Your task to perform on an android device: Open Reddit.com Image 0: 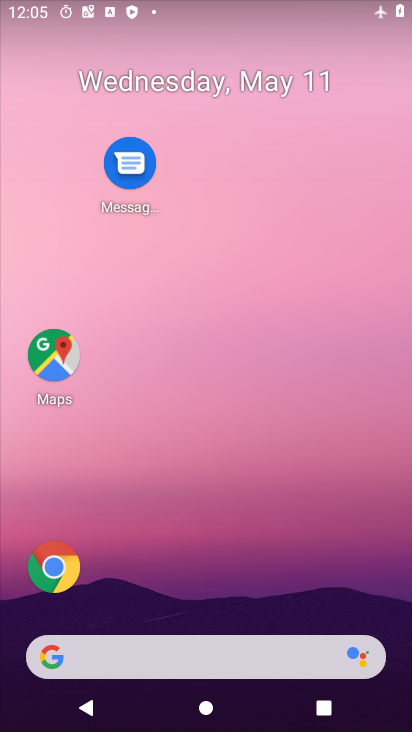
Step 0: click (136, 175)
Your task to perform on an android device: Open Reddit.com Image 1: 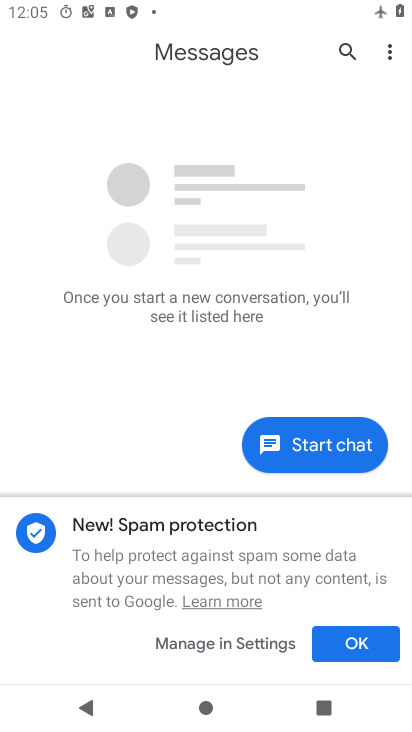
Step 1: press home button
Your task to perform on an android device: Open Reddit.com Image 2: 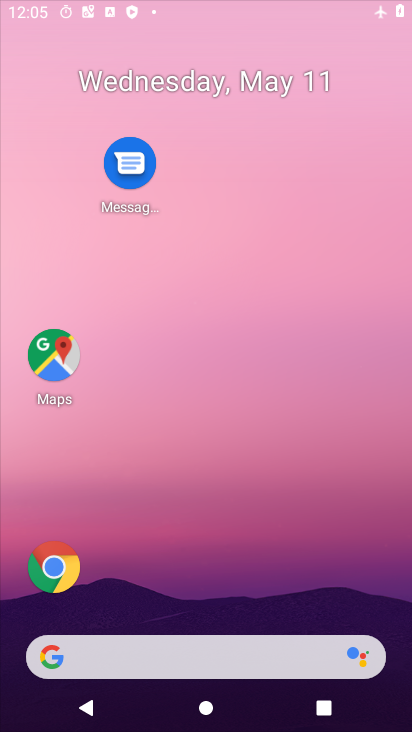
Step 2: drag from (236, 537) to (195, 131)
Your task to perform on an android device: Open Reddit.com Image 3: 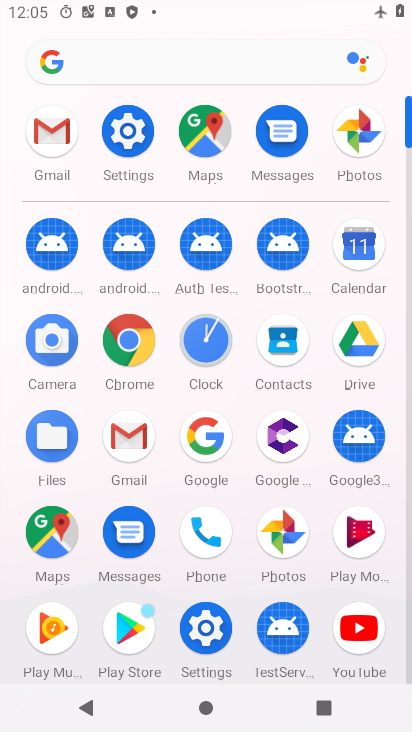
Step 3: click (124, 351)
Your task to perform on an android device: Open Reddit.com Image 4: 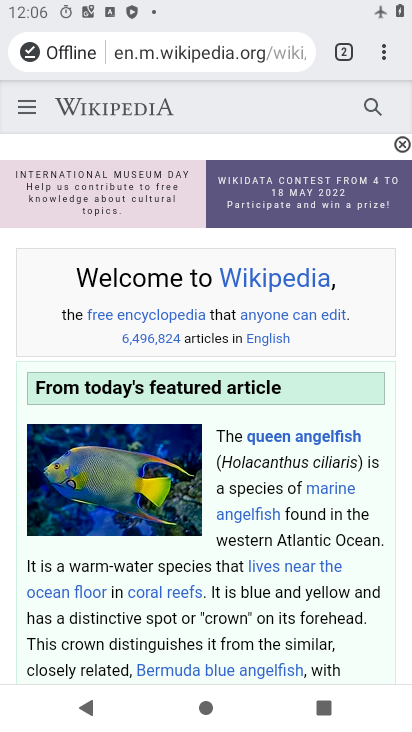
Step 4: click (349, 56)
Your task to perform on an android device: Open Reddit.com Image 5: 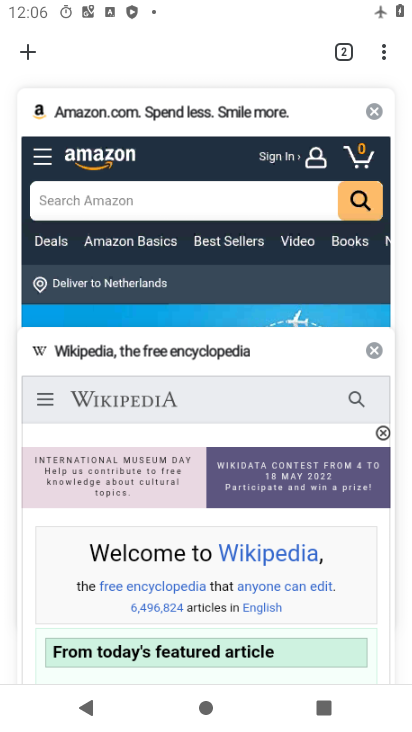
Step 5: click (35, 52)
Your task to perform on an android device: Open Reddit.com Image 6: 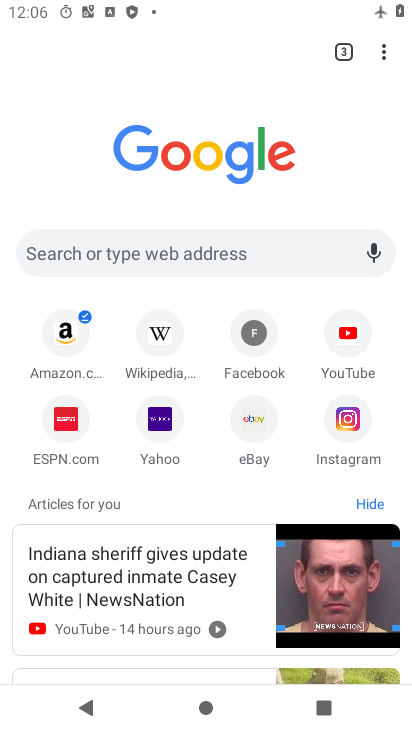
Step 6: click (112, 249)
Your task to perform on an android device: Open Reddit.com Image 7: 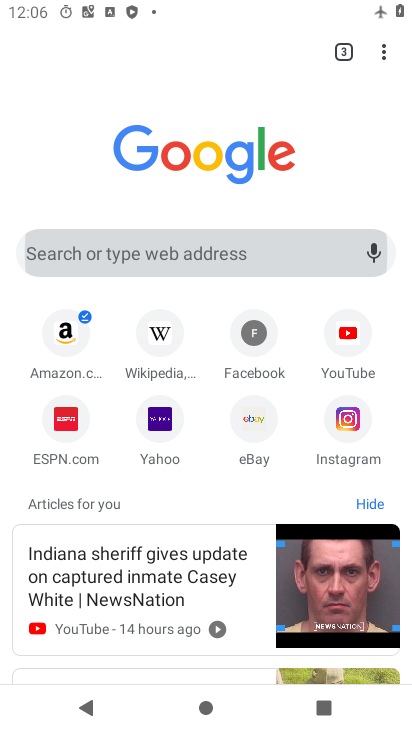
Step 7: click (112, 249)
Your task to perform on an android device: Open Reddit.com Image 8: 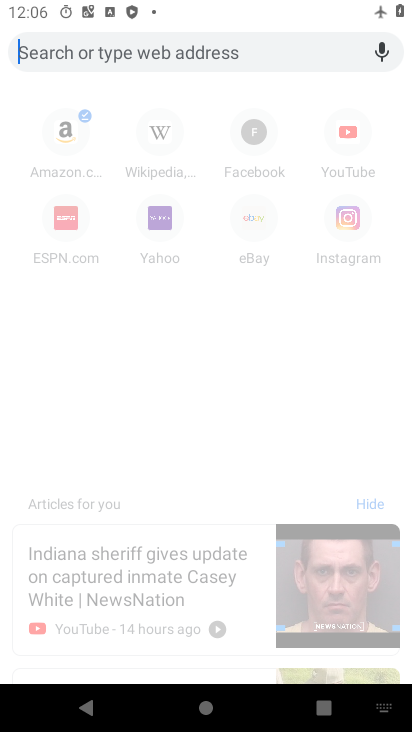
Step 8: type "Reddit.com"
Your task to perform on an android device: Open Reddit.com Image 9: 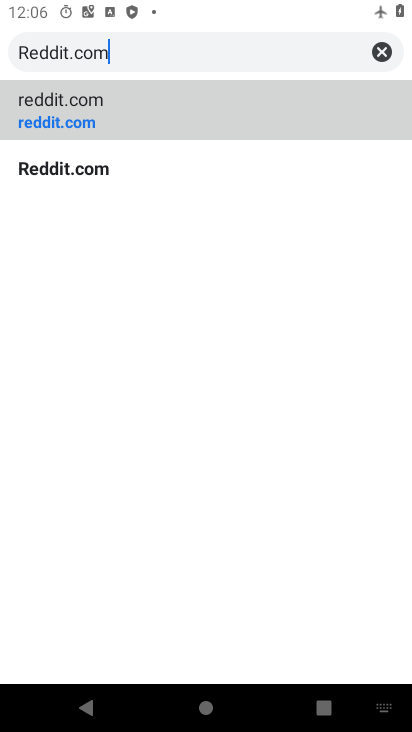
Step 9: type ""
Your task to perform on an android device: Open Reddit.com Image 10: 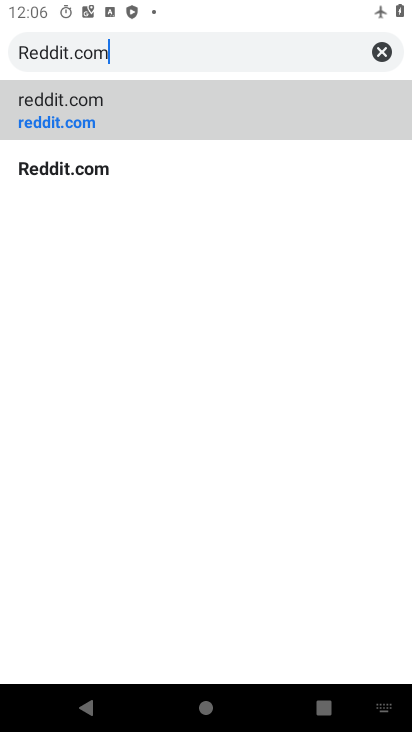
Step 10: click (134, 121)
Your task to perform on an android device: Open Reddit.com Image 11: 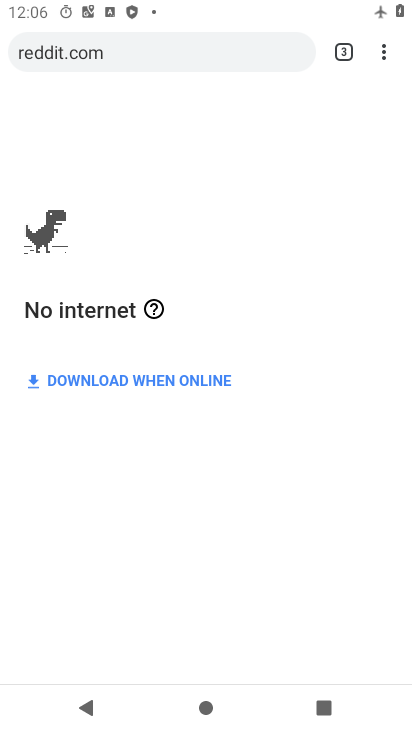
Step 11: task complete